Your task to perform on an android device: Open ESPN.com Image 0: 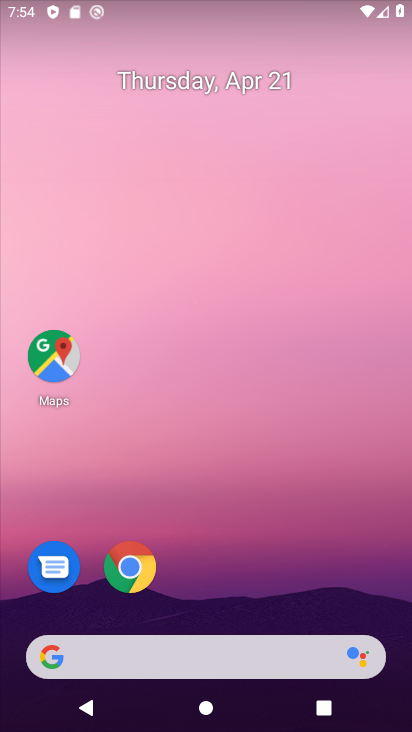
Step 0: click (179, 654)
Your task to perform on an android device: Open ESPN.com Image 1: 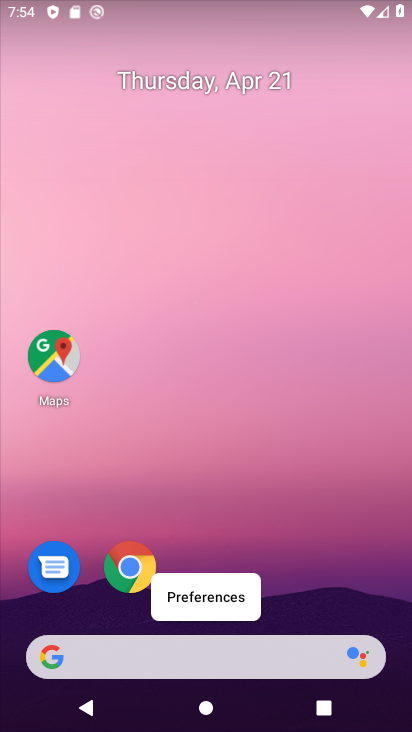
Step 1: click (183, 671)
Your task to perform on an android device: Open ESPN.com Image 2: 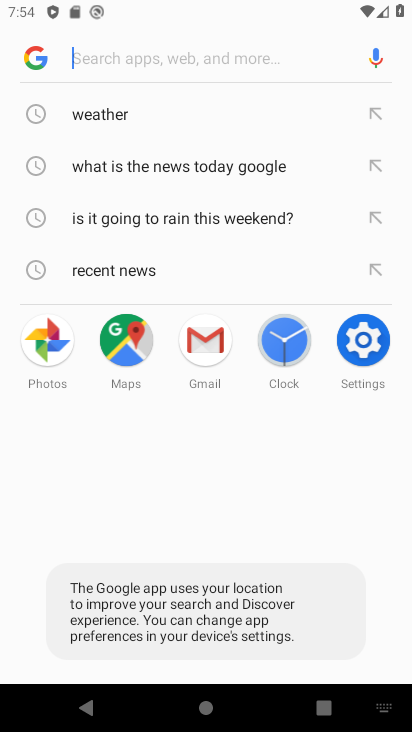
Step 2: click (158, 63)
Your task to perform on an android device: Open ESPN.com Image 3: 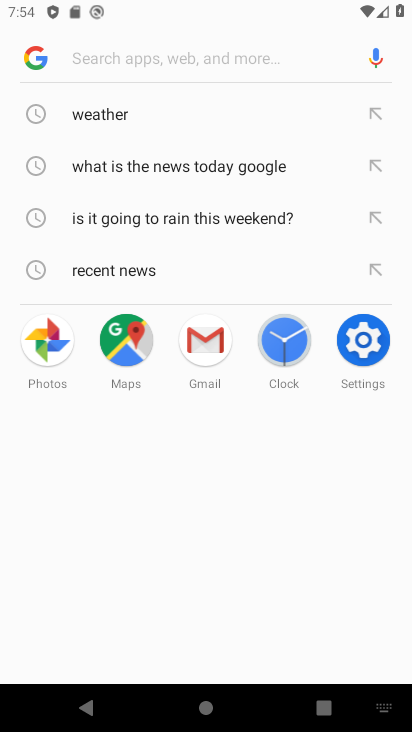
Step 3: type "ESPN.com"
Your task to perform on an android device: Open ESPN.com Image 4: 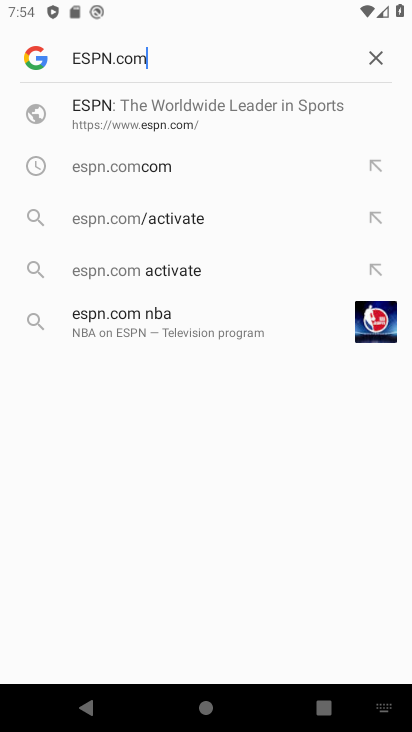
Step 4: click (203, 110)
Your task to perform on an android device: Open ESPN.com Image 5: 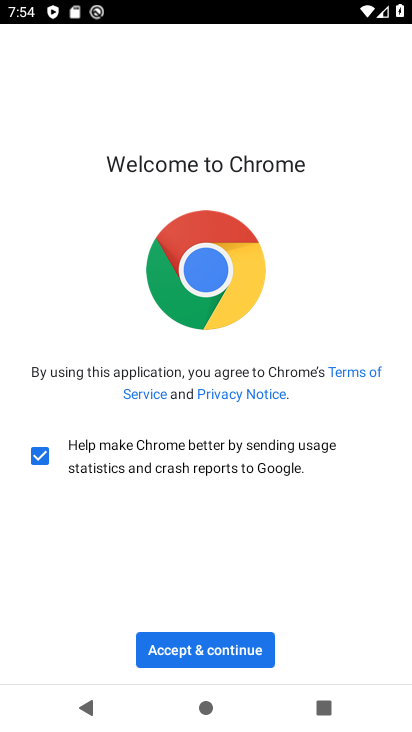
Step 5: click (227, 651)
Your task to perform on an android device: Open ESPN.com Image 6: 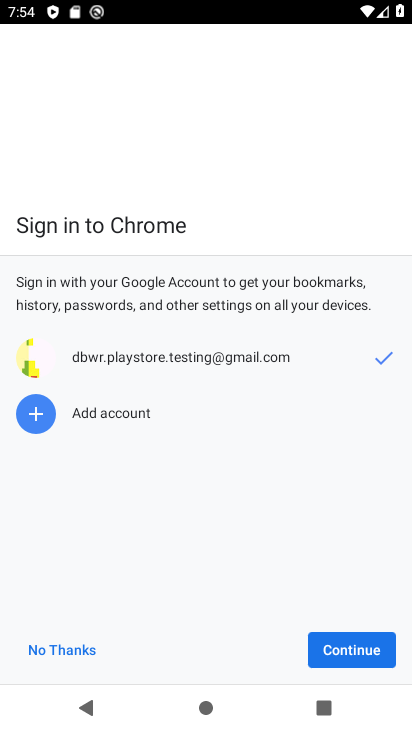
Step 6: click (348, 648)
Your task to perform on an android device: Open ESPN.com Image 7: 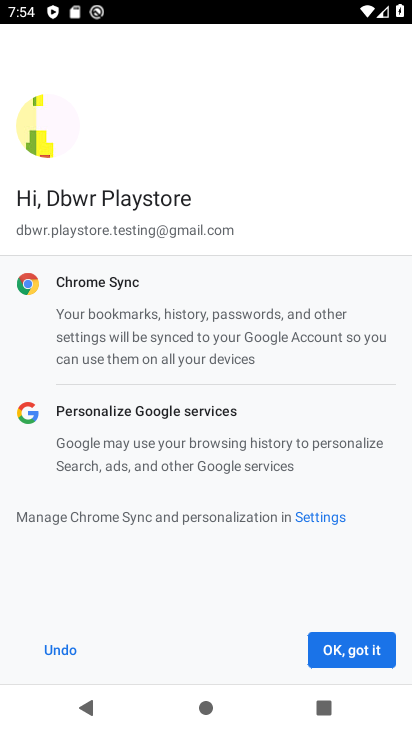
Step 7: click (362, 635)
Your task to perform on an android device: Open ESPN.com Image 8: 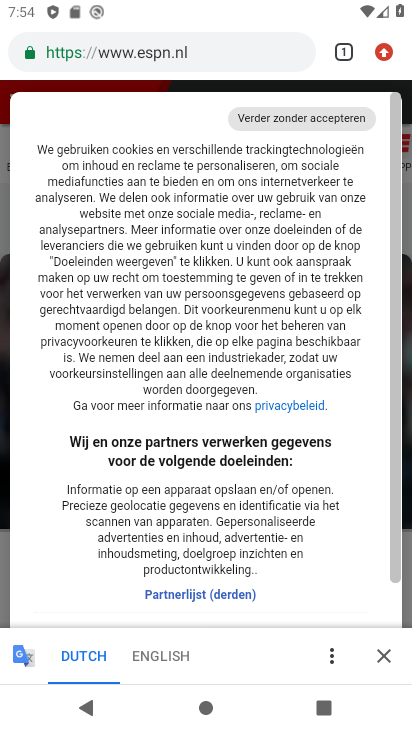
Step 8: task complete